Your task to perform on an android device: set the timer Image 0: 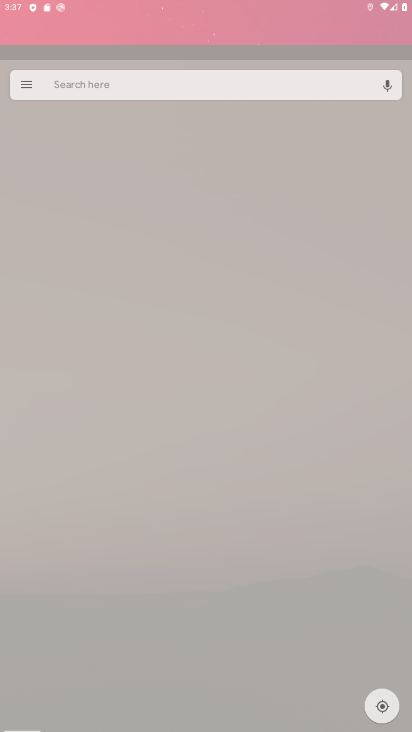
Step 0: press home button
Your task to perform on an android device: set the timer Image 1: 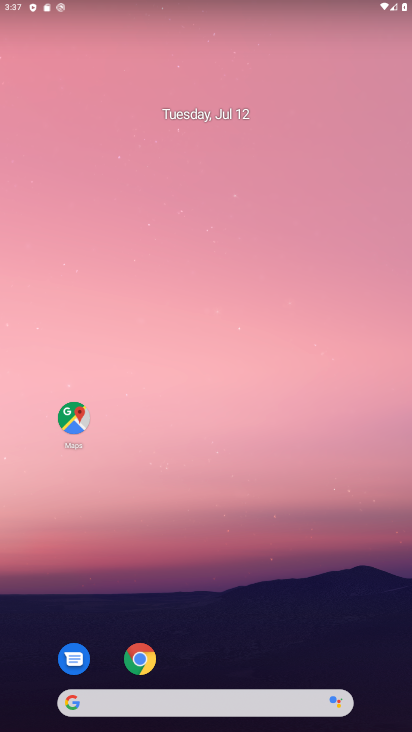
Step 1: drag from (222, 528) to (234, 108)
Your task to perform on an android device: set the timer Image 2: 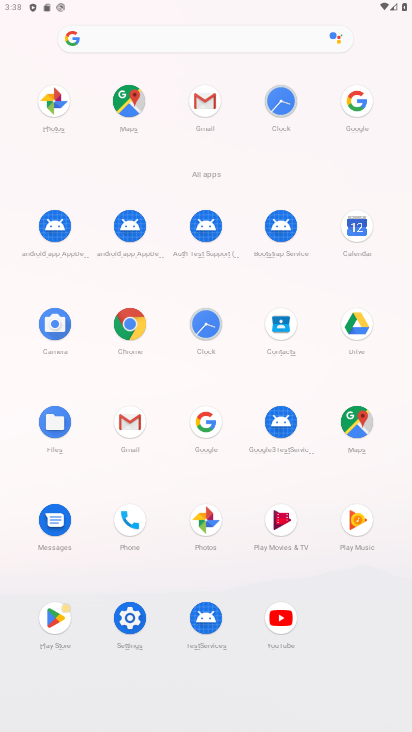
Step 2: click (289, 101)
Your task to perform on an android device: set the timer Image 3: 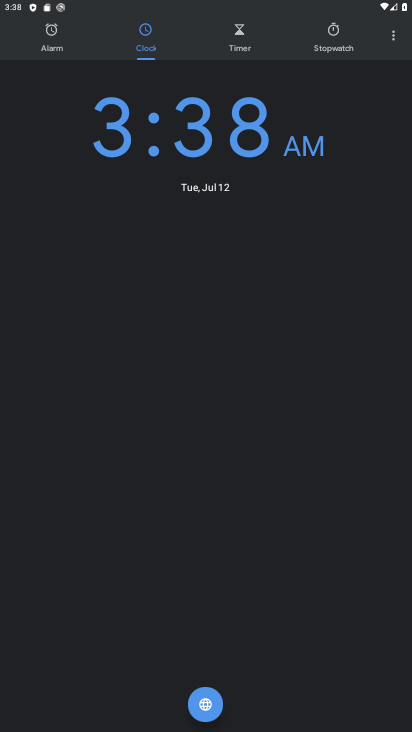
Step 3: click (241, 32)
Your task to perform on an android device: set the timer Image 4: 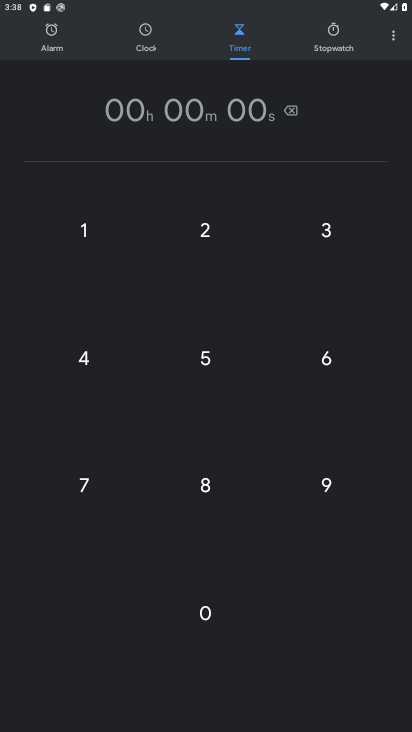
Step 4: click (211, 234)
Your task to perform on an android device: set the timer Image 5: 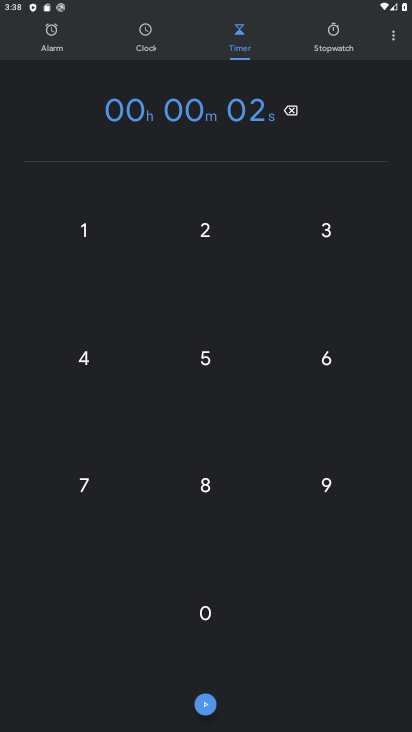
Step 5: click (205, 233)
Your task to perform on an android device: set the timer Image 6: 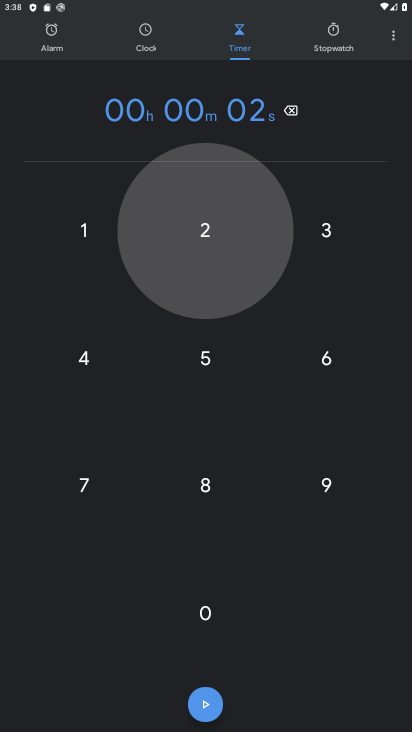
Step 6: click (205, 233)
Your task to perform on an android device: set the timer Image 7: 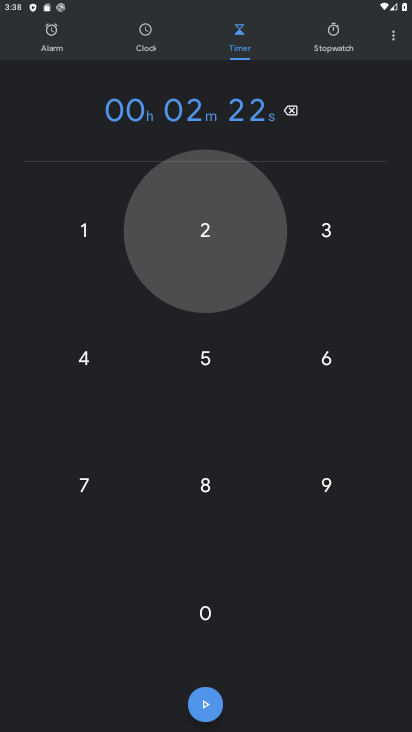
Step 7: click (205, 233)
Your task to perform on an android device: set the timer Image 8: 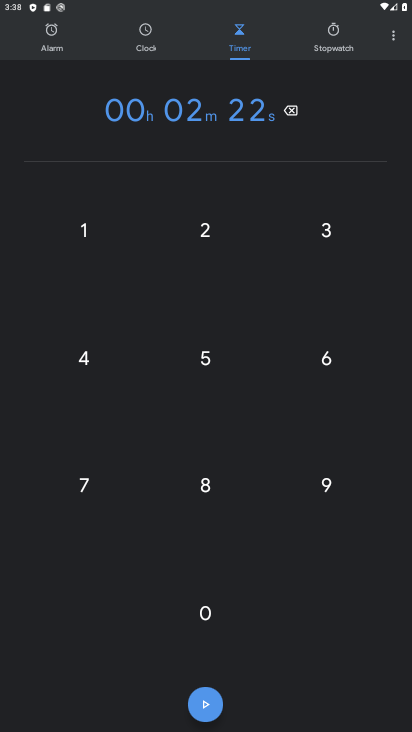
Step 8: click (205, 233)
Your task to perform on an android device: set the timer Image 9: 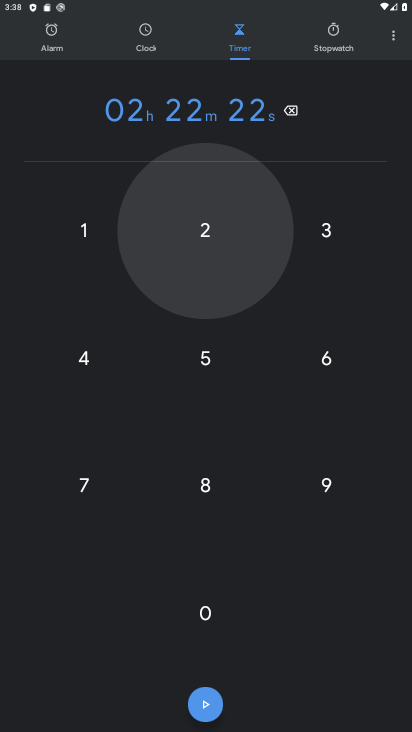
Step 9: click (205, 233)
Your task to perform on an android device: set the timer Image 10: 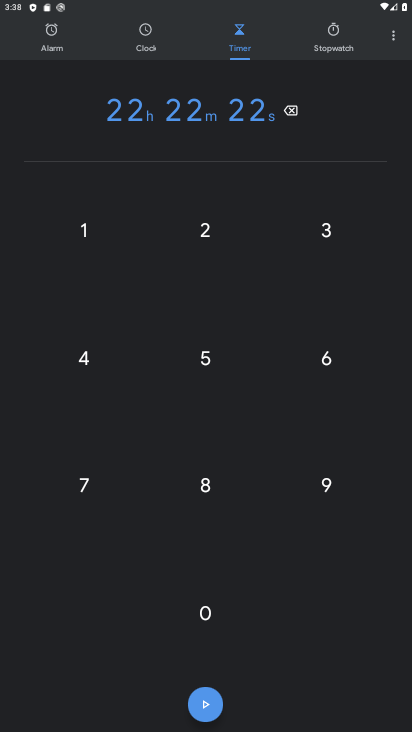
Step 10: click (194, 710)
Your task to perform on an android device: set the timer Image 11: 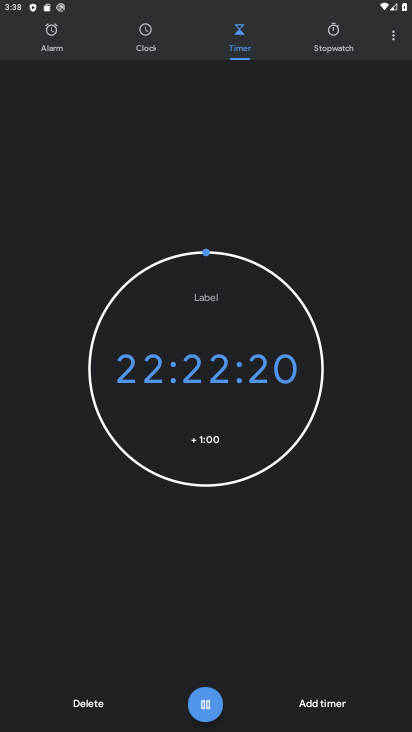
Step 11: task complete